Your task to perform on an android device: Open ESPN.com Image 0: 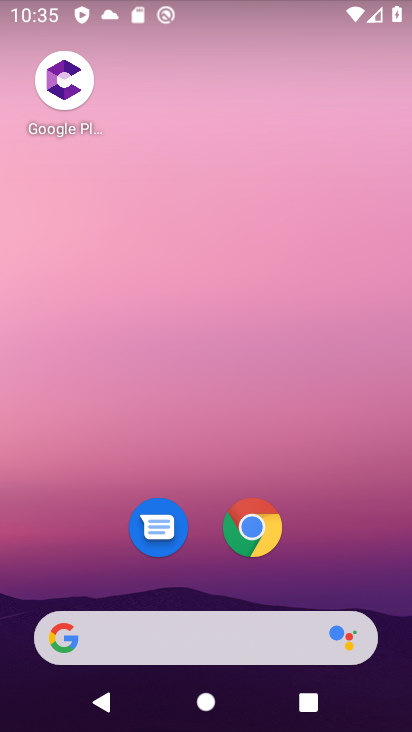
Step 0: click (299, 633)
Your task to perform on an android device: Open ESPN.com Image 1: 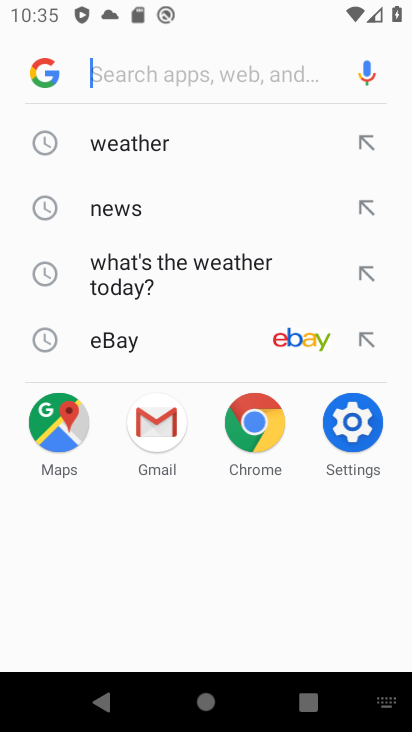
Step 1: type "espn.com"
Your task to perform on an android device: Open ESPN.com Image 2: 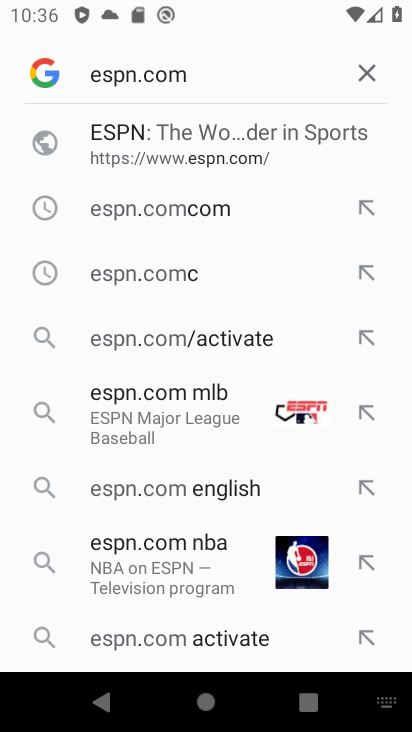
Step 2: click (149, 128)
Your task to perform on an android device: Open ESPN.com Image 3: 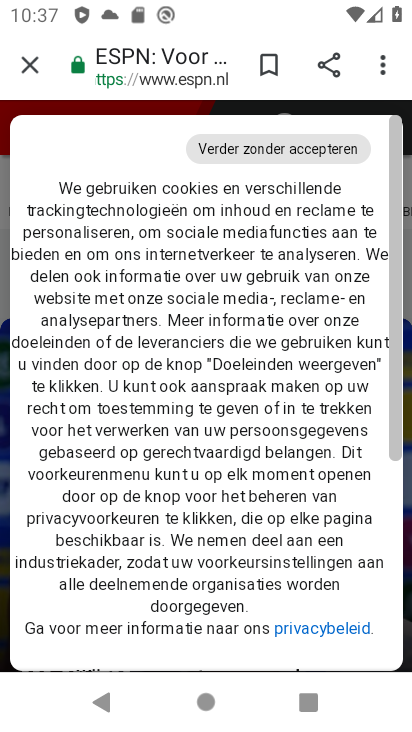
Step 3: task complete